Your task to perform on an android device: Open Google Chrome and click the shortcut for Amazon.com Image 0: 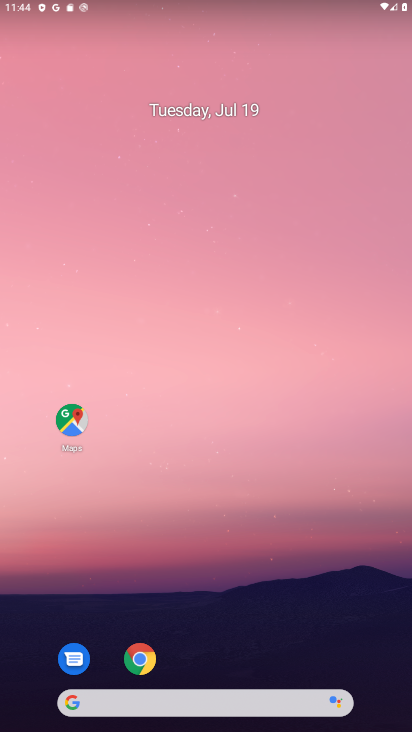
Step 0: press home button
Your task to perform on an android device: Open Google Chrome and click the shortcut for Amazon.com Image 1: 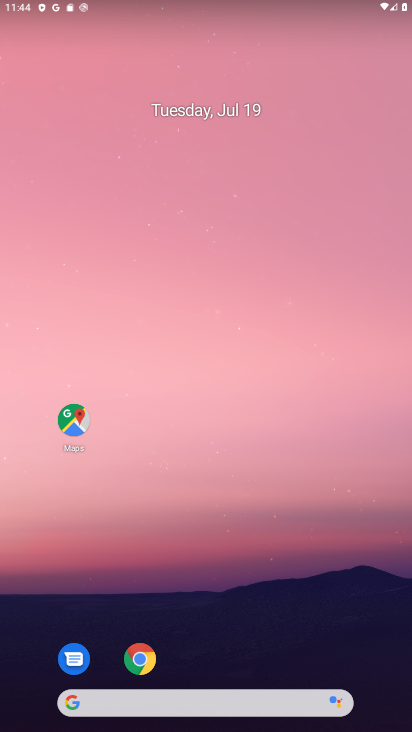
Step 1: click (140, 653)
Your task to perform on an android device: Open Google Chrome and click the shortcut for Amazon.com Image 2: 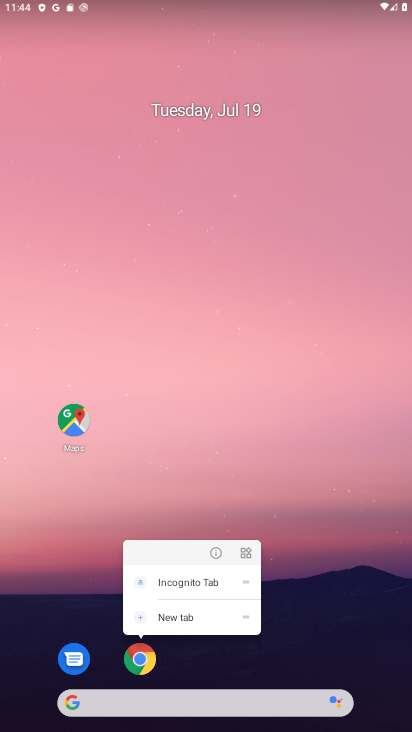
Step 2: click (137, 658)
Your task to perform on an android device: Open Google Chrome and click the shortcut for Amazon.com Image 3: 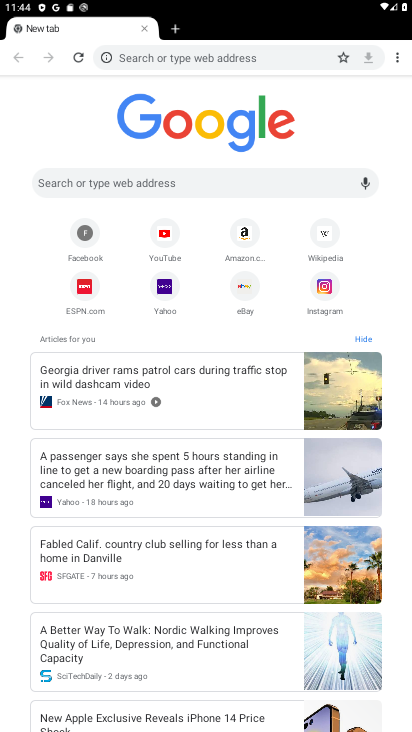
Step 3: click (243, 230)
Your task to perform on an android device: Open Google Chrome and click the shortcut for Amazon.com Image 4: 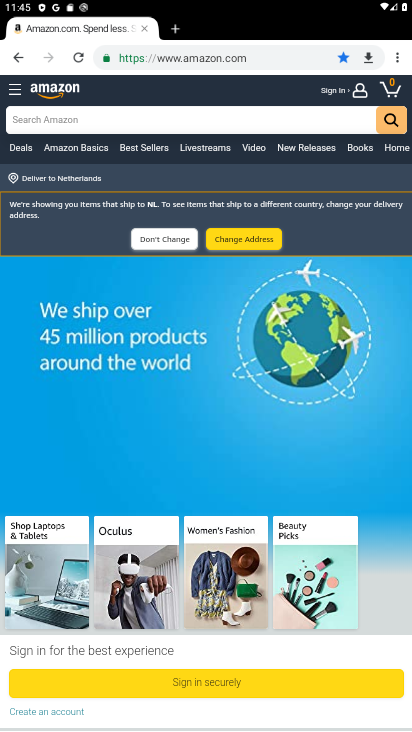
Step 4: task complete